Your task to perform on an android device: all mails in gmail Image 0: 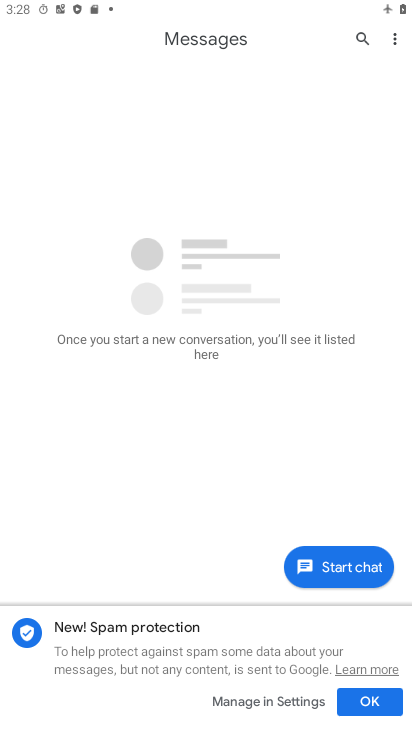
Step 0: press home button
Your task to perform on an android device: all mails in gmail Image 1: 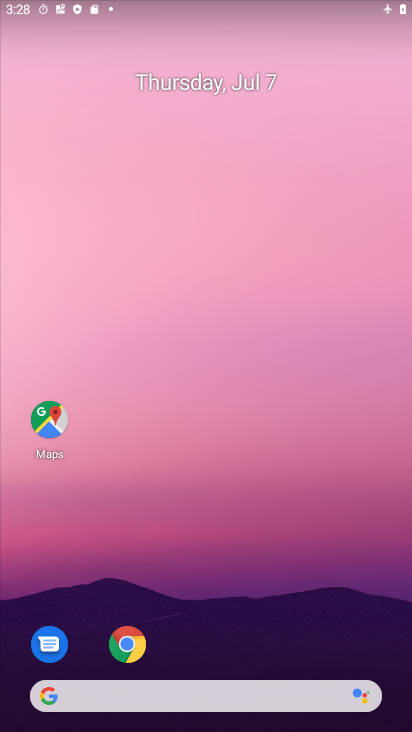
Step 1: click (239, 655)
Your task to perform on an android device: all mails in gmail Image 2: 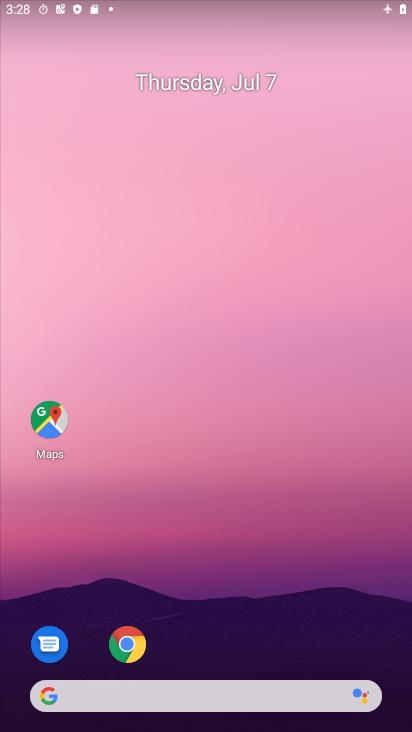
Step 2: drag from (239, 655) to (220, 220)
Your task to perform on an android device: all mails in gmail Image 3: 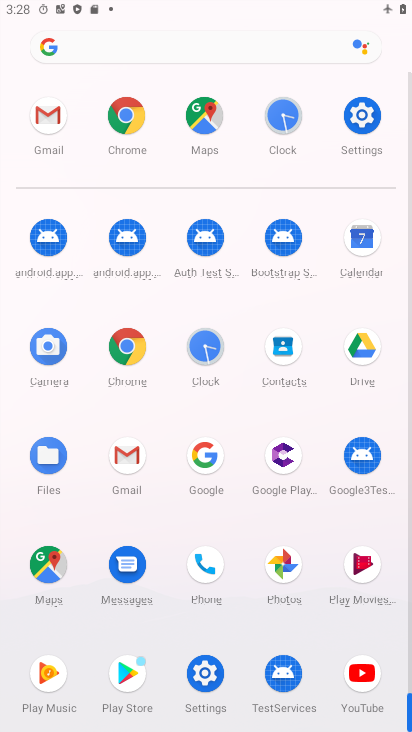
Step 3: click (130, 457)
Your task to perform on an android device: all mails in gmail Image 4: 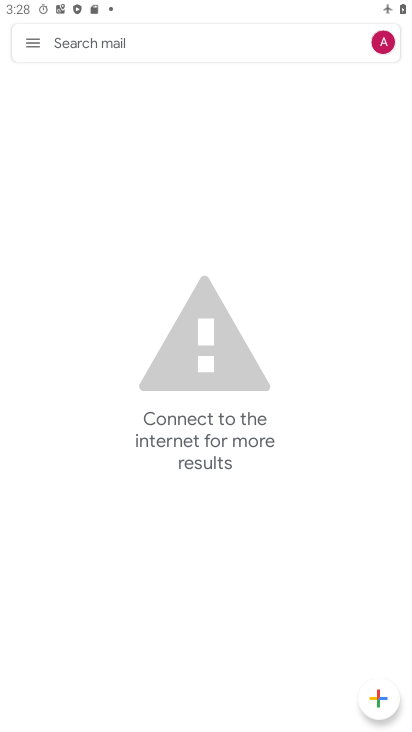
Step 4: click (24, 39)
Your task to perform on an android device: all mails in gmail Image 5: 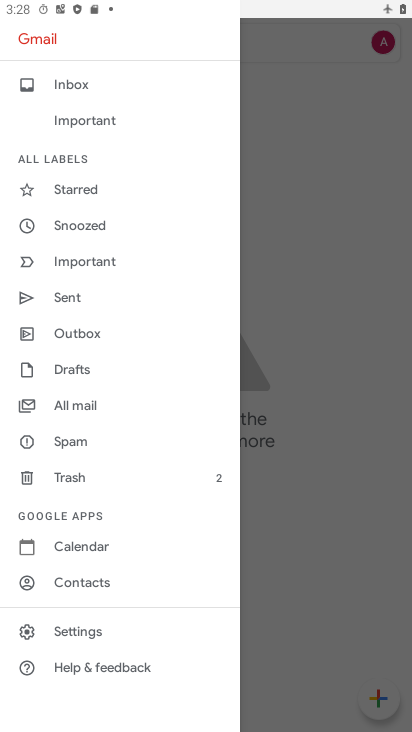
Step 5: click (68, 408)
Your task to perform on an android device: all mails in gmail Image 6: 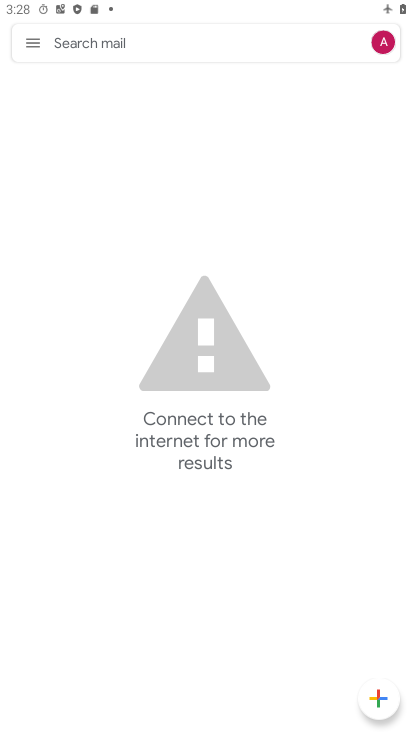
Step 6: task complete